Your task to perform on an android device: check storage Image 0: 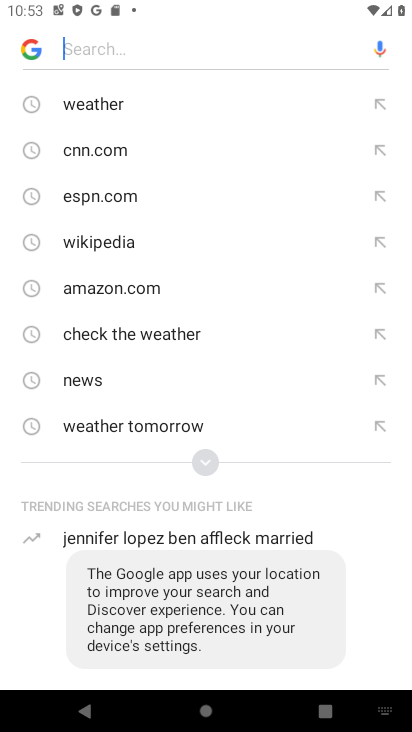
Step 0: press home button
Your task to perform on an android device: check storage Image 1: 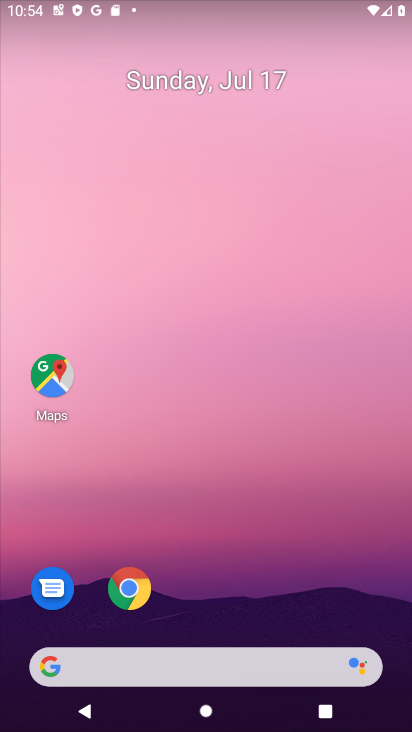
Step 1: drag from (219, 621) to (236, 34)
Your task to perform on an android device: check storage Image 2: 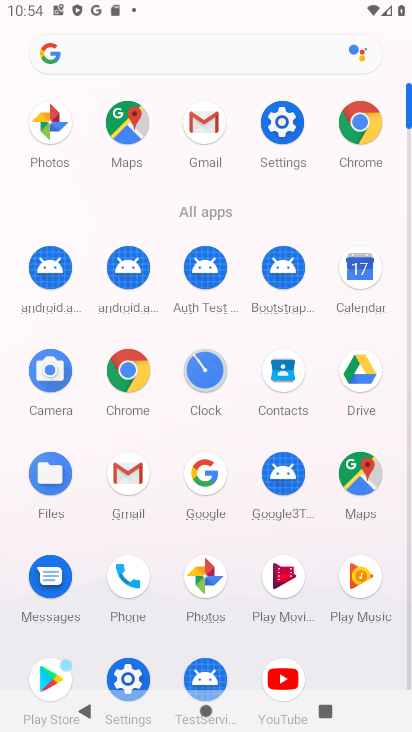
Step 2: click (280, 115)
Your task to perform on an android device: check storage Image 3: 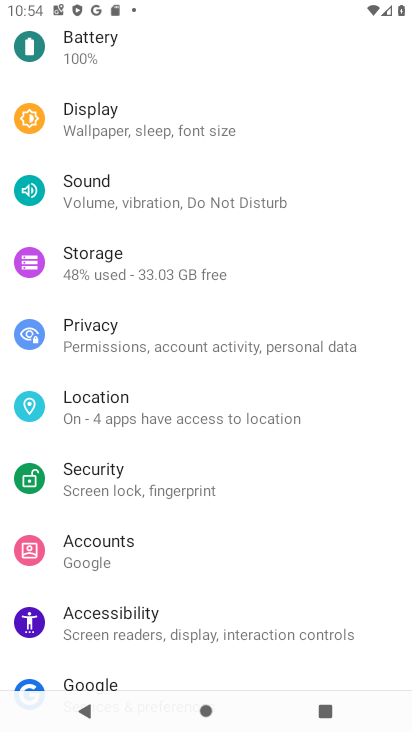
Step 3: click (130, 260)
Your task to perform on an android device: check storage Image 4: 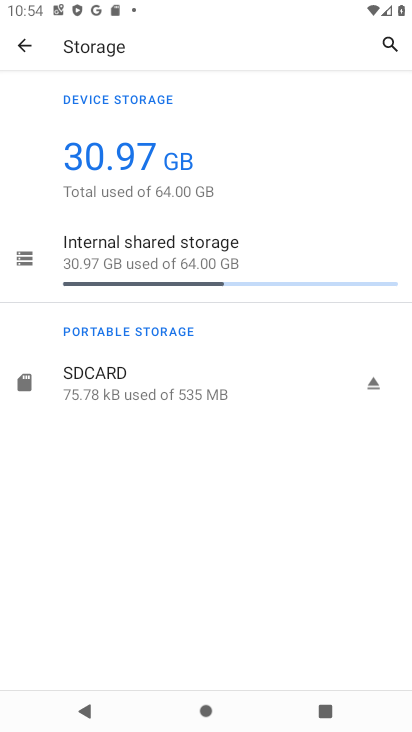
Step 4: task complete